Your task to perform on an android device: What's the weather? Image 0: 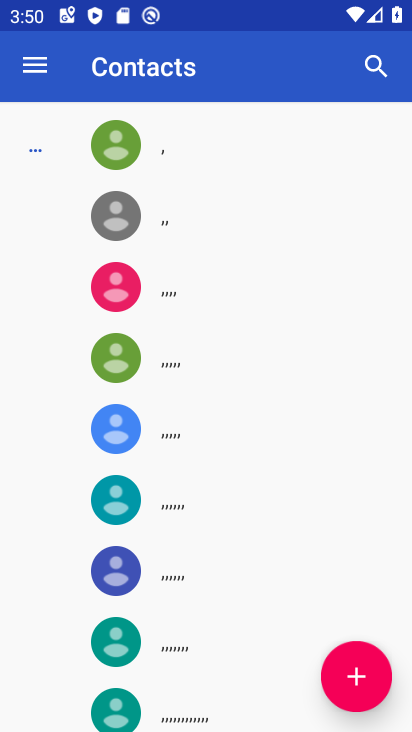
Step 0: press home button
Your task to perform on an android device: What's the weather? Image 1: 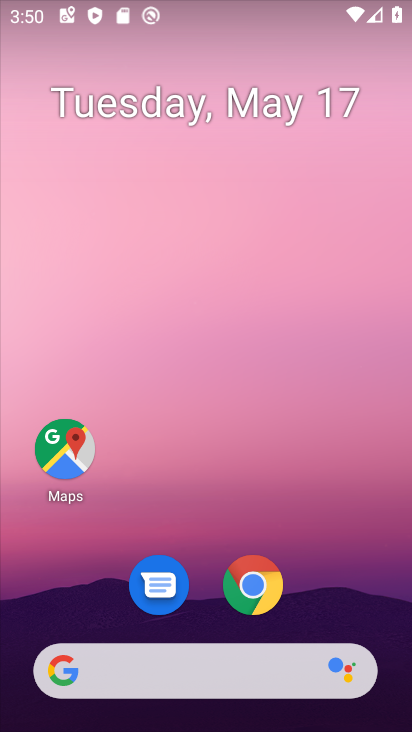
Step 1: click (167, 665)
Your task to perform on an android device: What's the weather? Image 2: 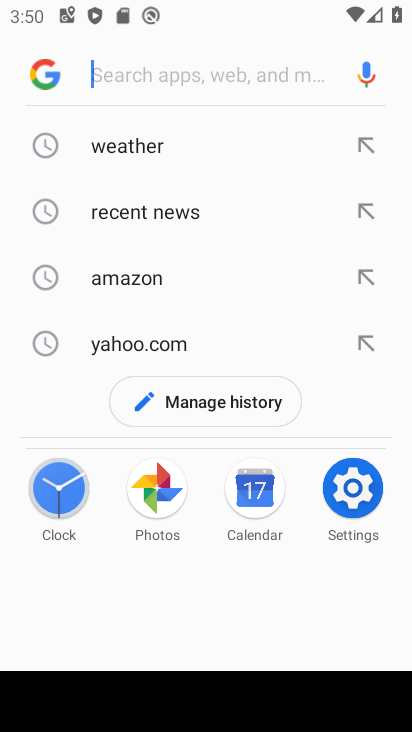
Step 2: click (115, 150)
Your task to perform on an android device: What's the weather? Image 3: 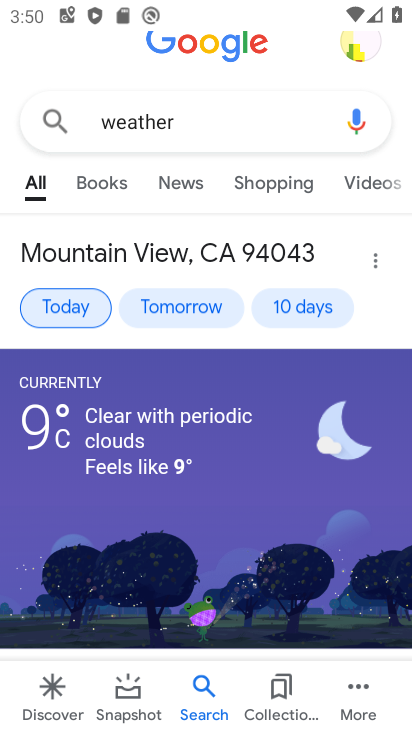
Step 3: task complete